Your task to perform on an android device: open wifi settings Image 0: 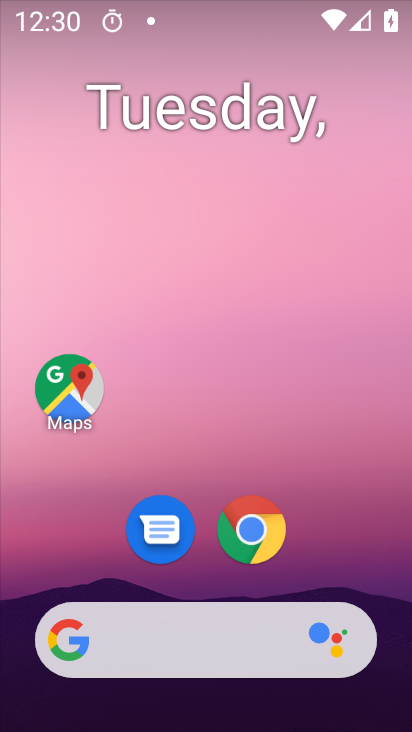
Step 0: drag from (368, 498) to (216, 0)
Your task to perform on an android device: open wifi settings Image 1: 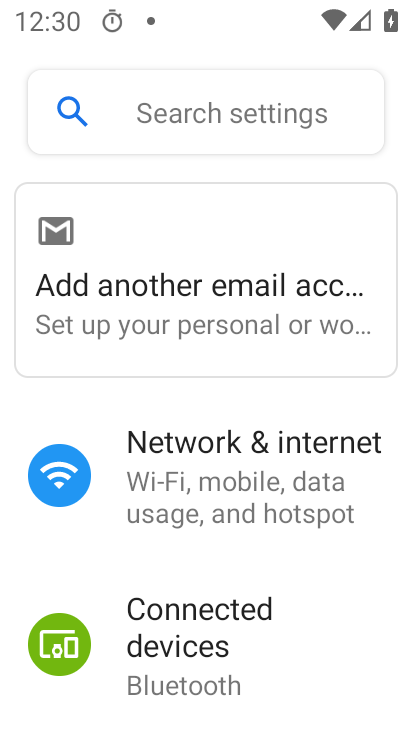
Step 1: click (196, 492)
Your task to perform on an android device: open wifi settings Image 2: 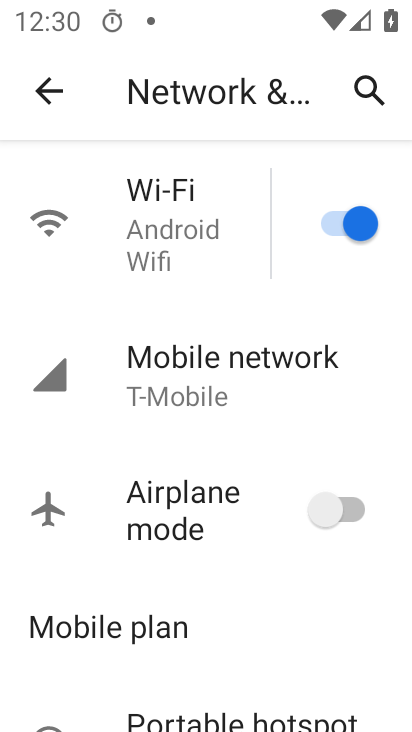
Step 2: click (189, 202)
Your task to perform on an android device: open wifi settings Image 3: 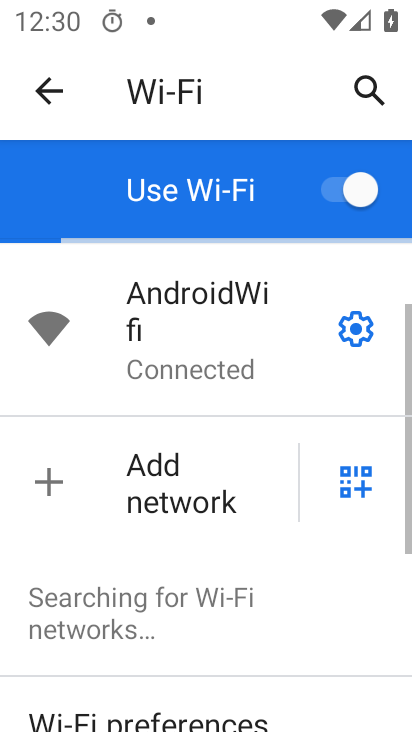
Step 3: task complete